Your task to perform on an android device: Open calendar and show me the third week of next month Image 0: 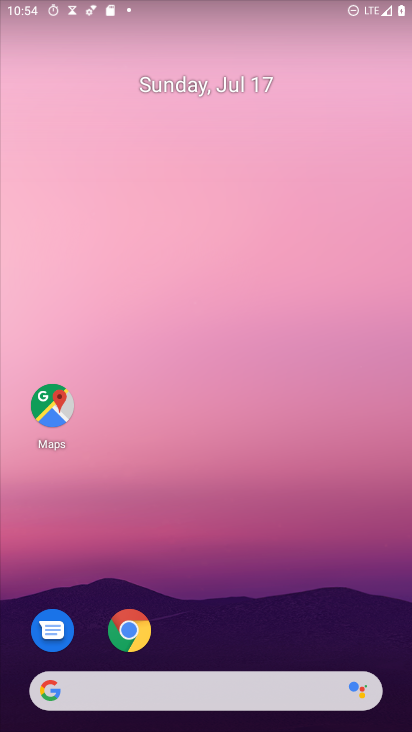
Step 0: drag from (180, 665) to (120, 10)
Your task to perform on an android device: Open calendar and show me the third week of next month Image 1: 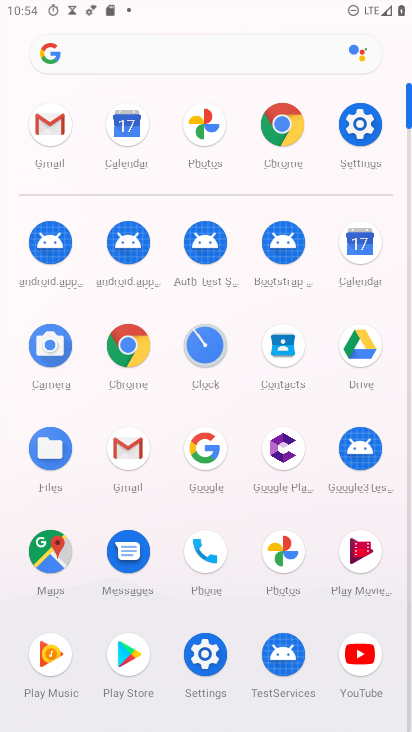
Step 1: click (362, 232)
Your task to perform on an android device: Open calendar and show me the third week of next month Image 2: 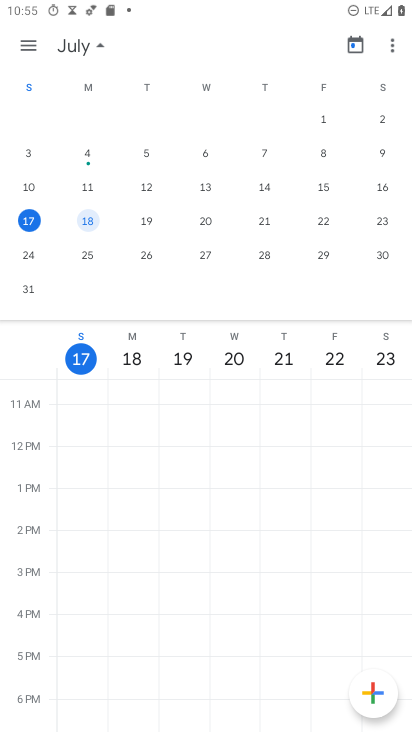
Step 2: drag from (335, 159) to (26, 197)
Your task to perform on an android device: Open calendar and show me the third week of next month Image 3: 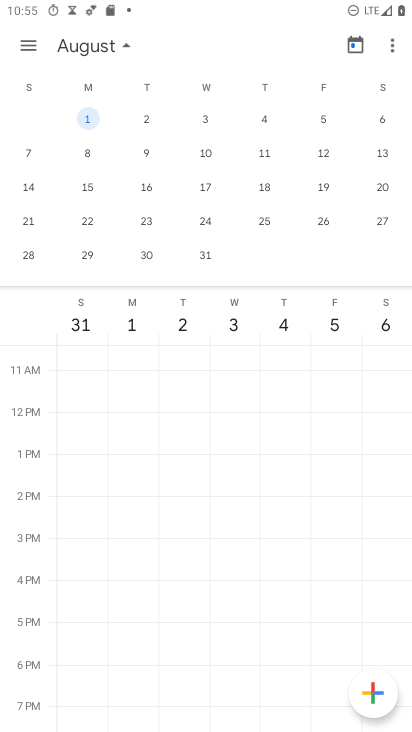
Step 3: click (199, 176)
Your task to perform on an android device: Open calendar and show me the third week of next month Image 4: 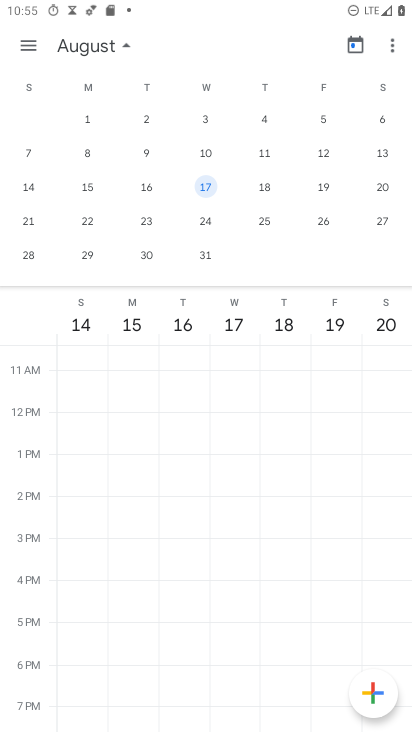
Step 4: task complete